Your task to perform on an android device: Search for Italian restaurants on Maps Image 0: 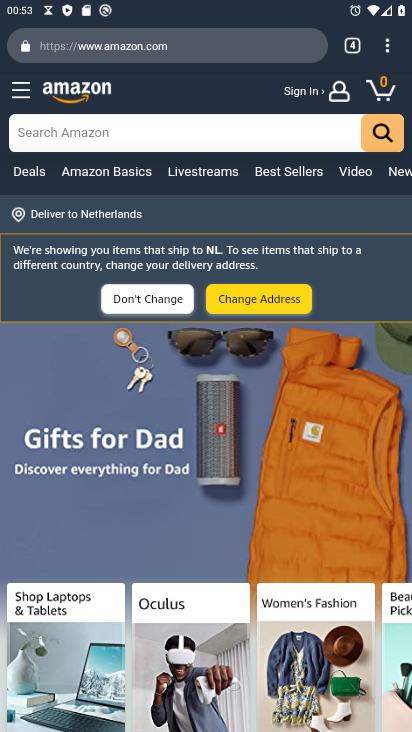
Step 0: press home button
Your task to perform on an android device: Search for Italian restaurants on Maps Image 1: 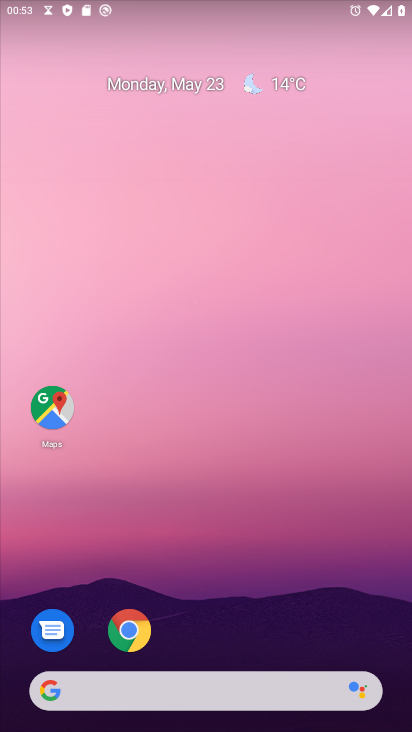
Step 1: click (56, 406)
Your task to perform on an android device: Search for Italian restaurants on Maps Image 2: 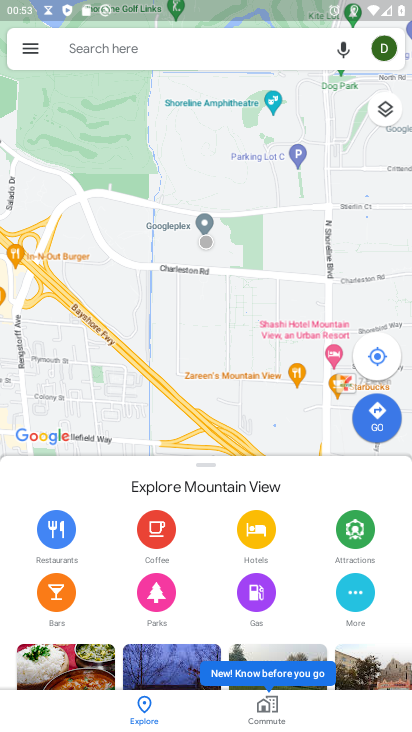
Step 2: click (199, 52)
Your task to perform on an android device: Search for Italian restaurants on Maps Image 3: 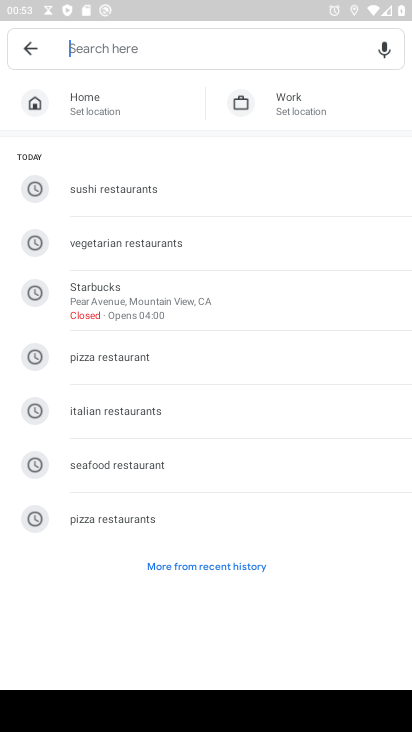
Step 3: click (158, 416)
Your task to perform on an android device: Search for Italian restaurants on Maps Image 4: 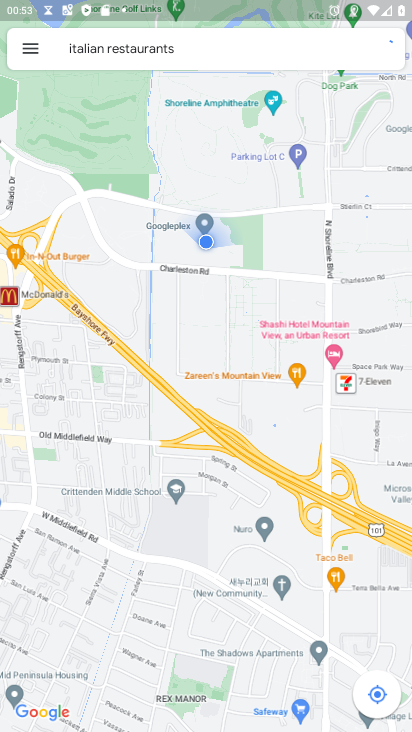
Step 4: task complete